Your task to perform on an android device: allow cookies in the chrome app Image 0: 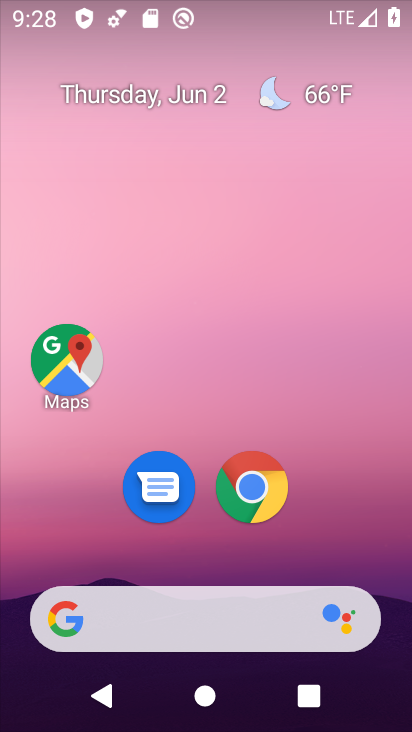
Step 0: click (252, 500)
Your task to perform on an android device: allow cookies in the chrome app Image 1: 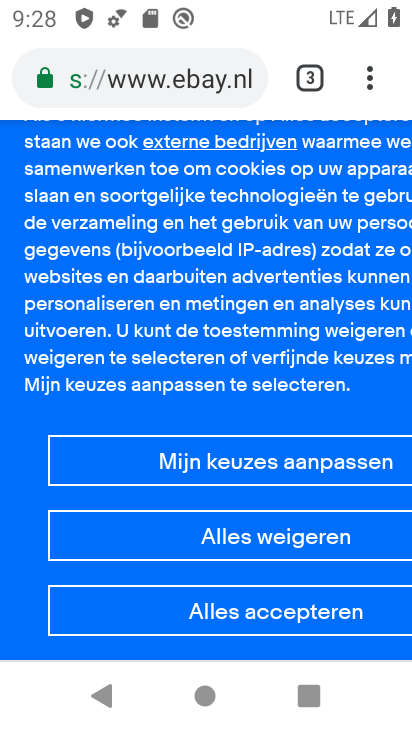
Step 1: click (372, 88)
Your task to perform on an android device: allow cookies in the chrome app Image 2: 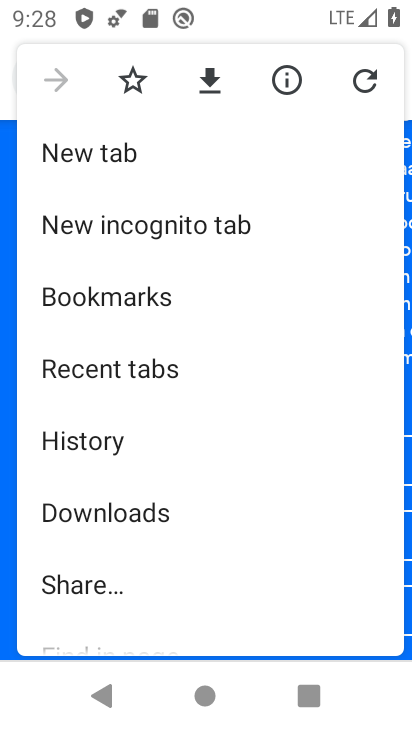
Step 2: drag from (125, 621) to (125, 159)
Your task to perform on an android device: allow cookies in the chrome app Image 3: 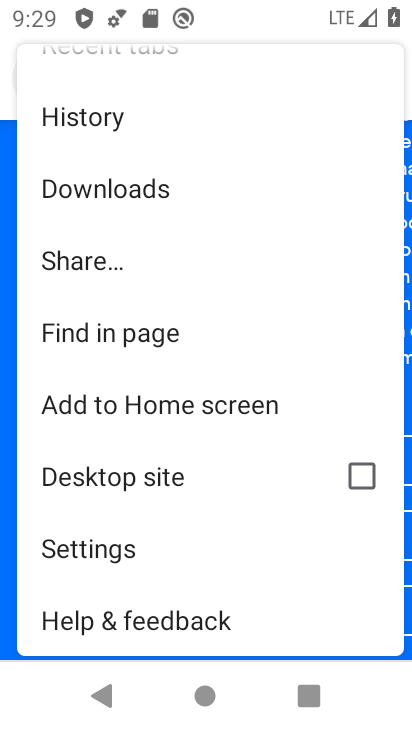
Step 3: click (91, 540)
Your task to perform on an android device: allow cookies in the chrome app Image 4: 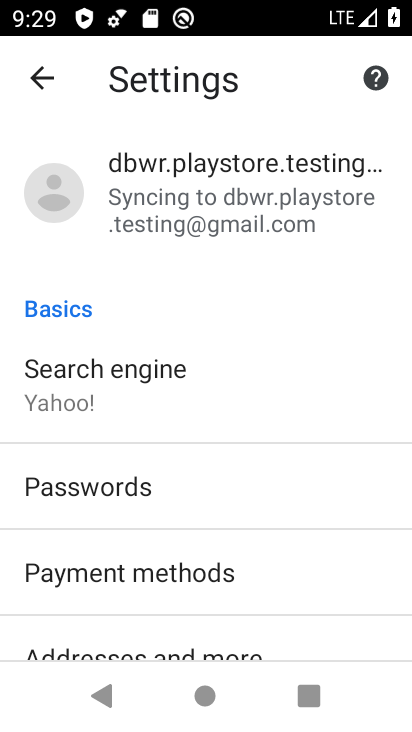
Step 4: drag from (139, 642) to (154, 205)
Your task to perform on an android device: allow cookies in the chrome app Image 5: 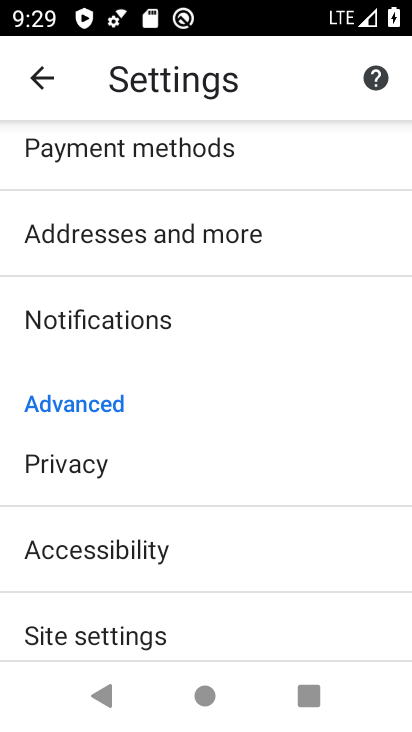
Step 5: click (70, 629)
Your task to perform on an android device: allow cookies in the chrome app Image 6: 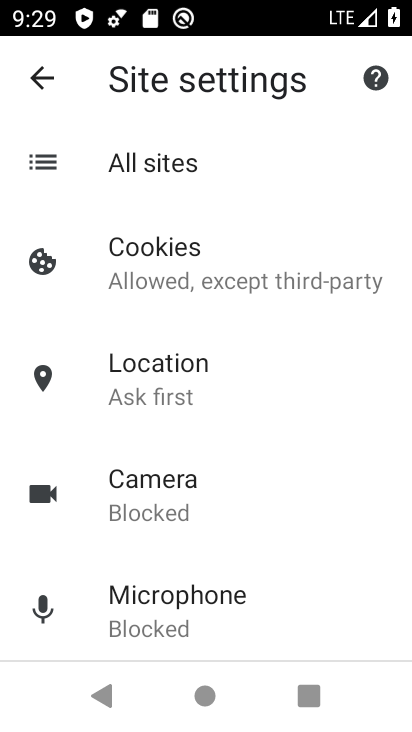
Step 6: click (153, 263)
Your task to perform on an android device: allow cookies in the chrome app Image 7: 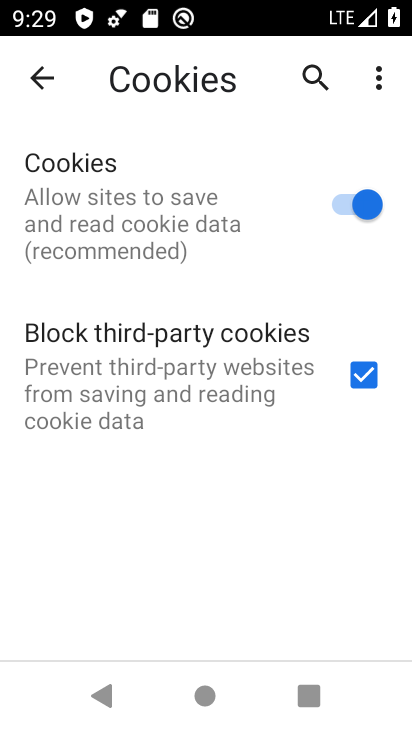
Step 7: task complete